Your task to perform on an android device: What's the weather going to be tomorrow? Image 0: 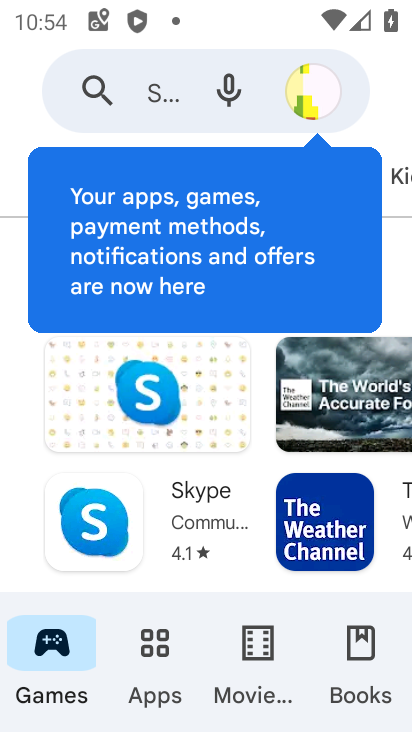
Step 0: press back button
Your task to perform on an android device: What's the weather going to be tomorrow? Image 1: 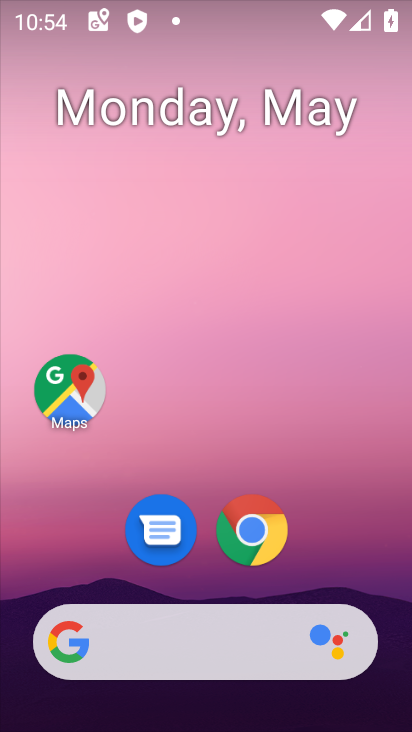
Step 1: drag from (338, 550) to (185, 136)
Your task to perform on an android device: What's the weather going to be tomorrow? Image 2: 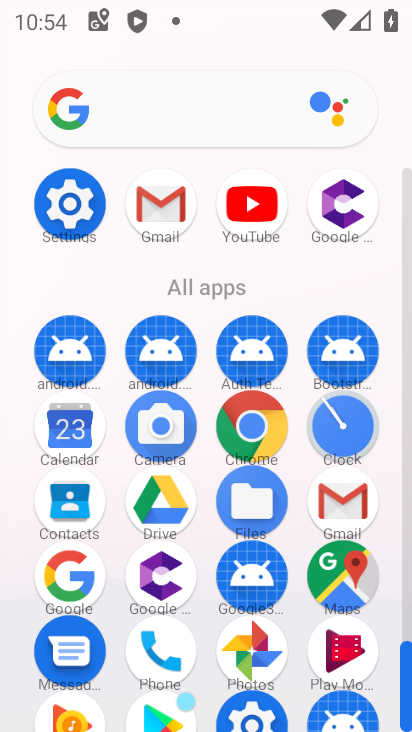
Step 2: click (68, 575)
Your task to perform on an android device: What's the weather going to be tomorrow? Image 3: 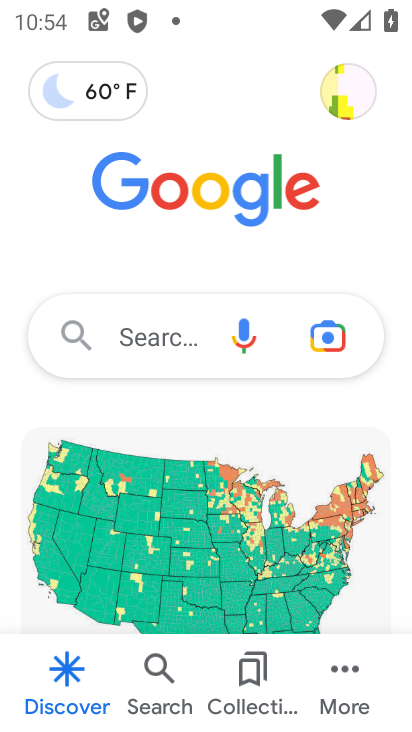
Step 3: click (162, 335)
Your task to perform on an android device: What's the weather going to be tomorrow? Image 4: 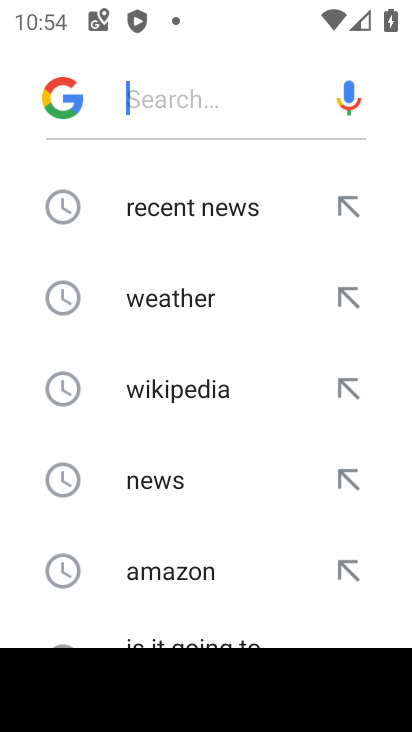
Step 4: type "What's the weather going to be tomorrow?"
Your task to perform on an android device: What's the weather going to be tomorrow? Image 5: 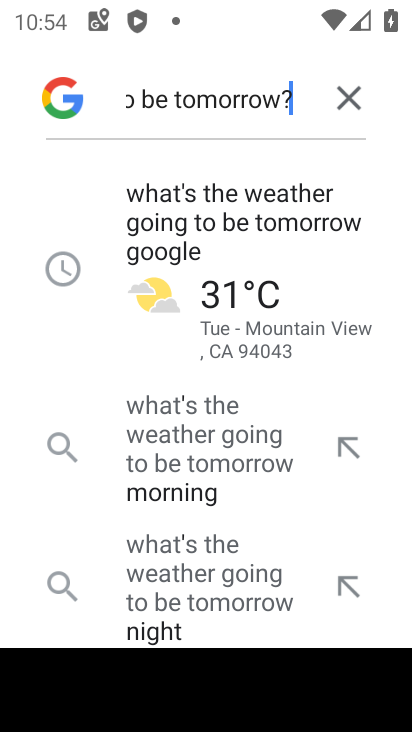
Step 5: click (281, 228)
Your task to perform on an android device: What's the weather going to be tomorrow? Image 6: 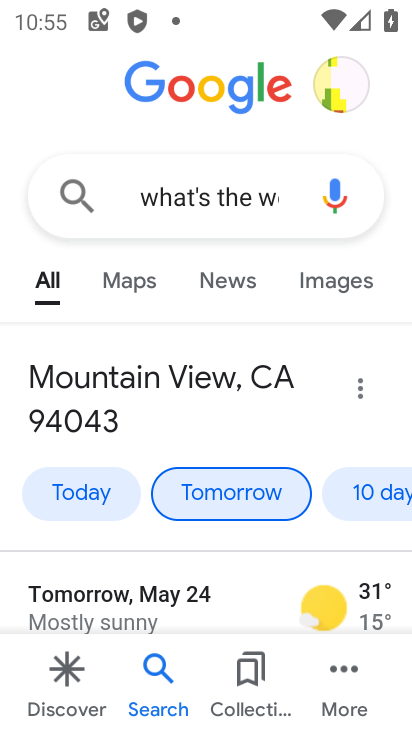
Step 6: task complete